Your task to perform on an android device: turn off wifi Image 0: 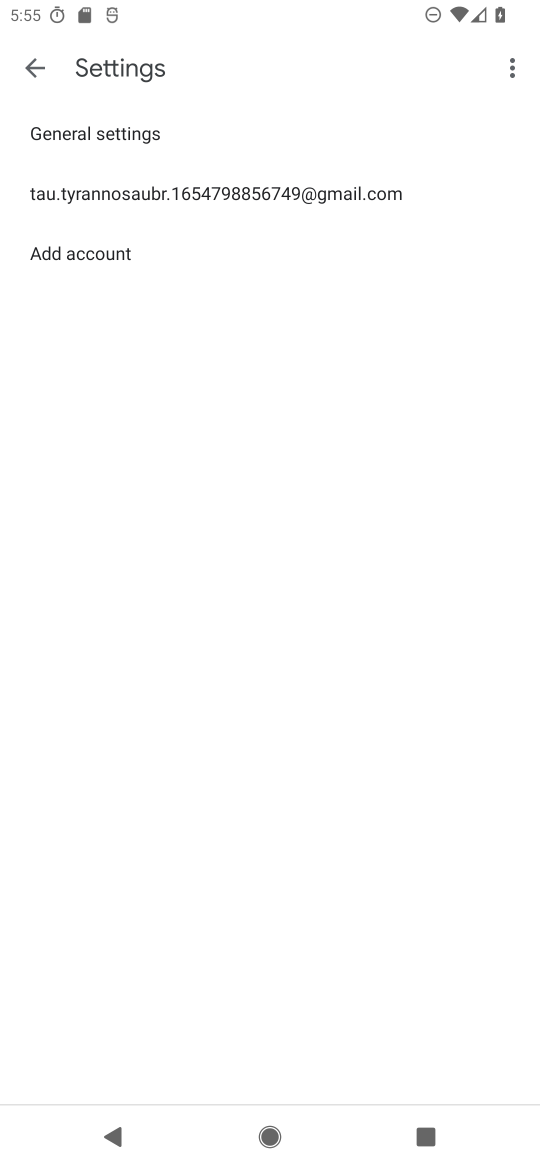
Step 0: press home button
Your task to perform on an android device: turn off wifi Image 1: 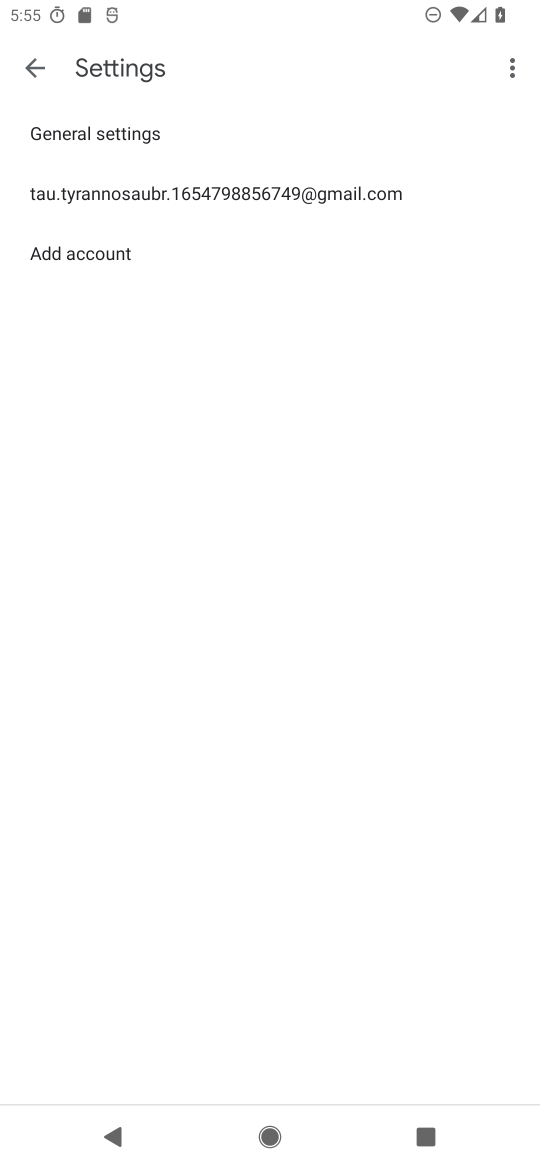
Step 1: press home button
Your task to perform on an android device: turn off wifi Image 2: 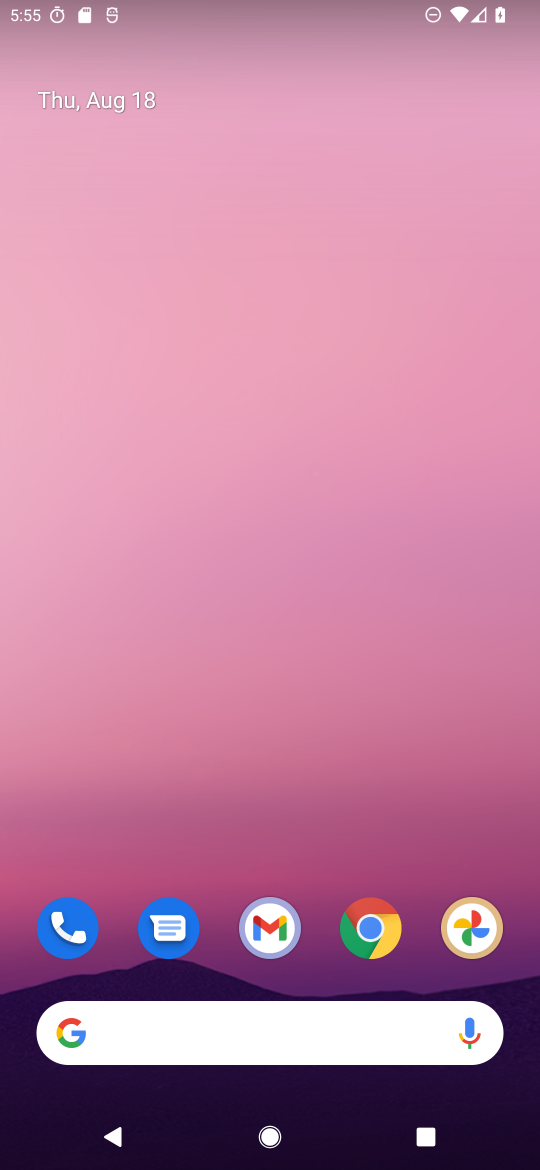
Step 2: drag from (327, 844) to (281, 46)
Your task to perform on an android device: turn off wifi Image 3: 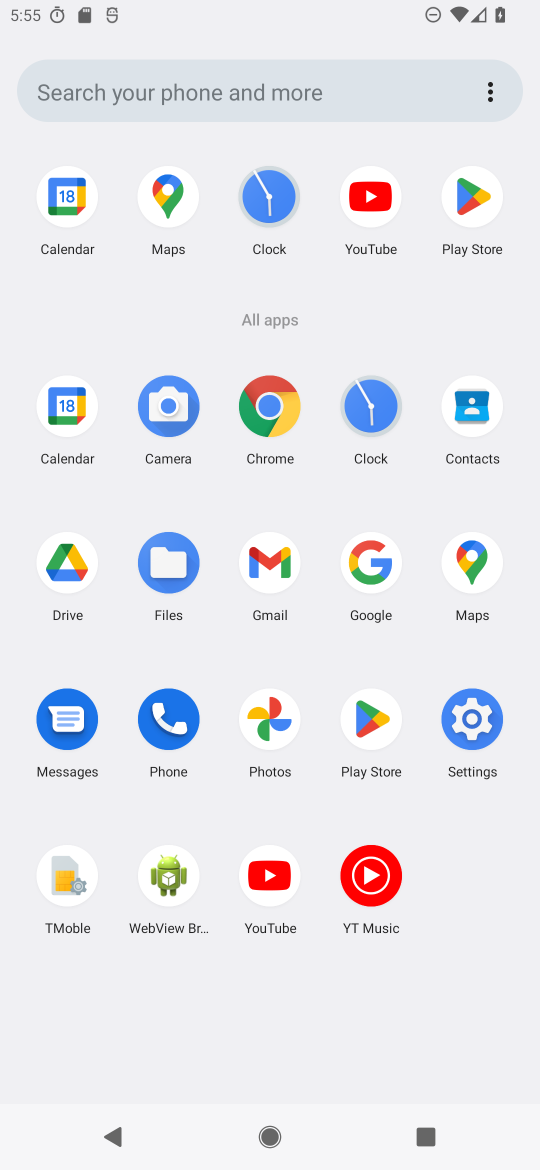
Step 3: click (476, 714)
Your task to perform on an android device: turn off wifi Image 4: 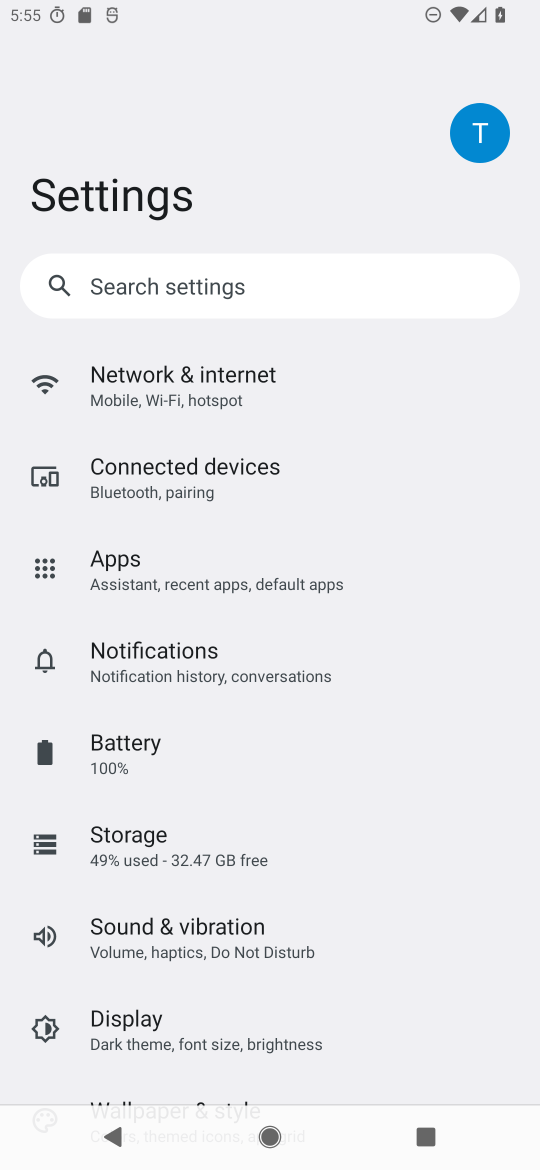
Step 4: click (194, 377)
Your task to perform on an android device: turn off wifi Image 5: 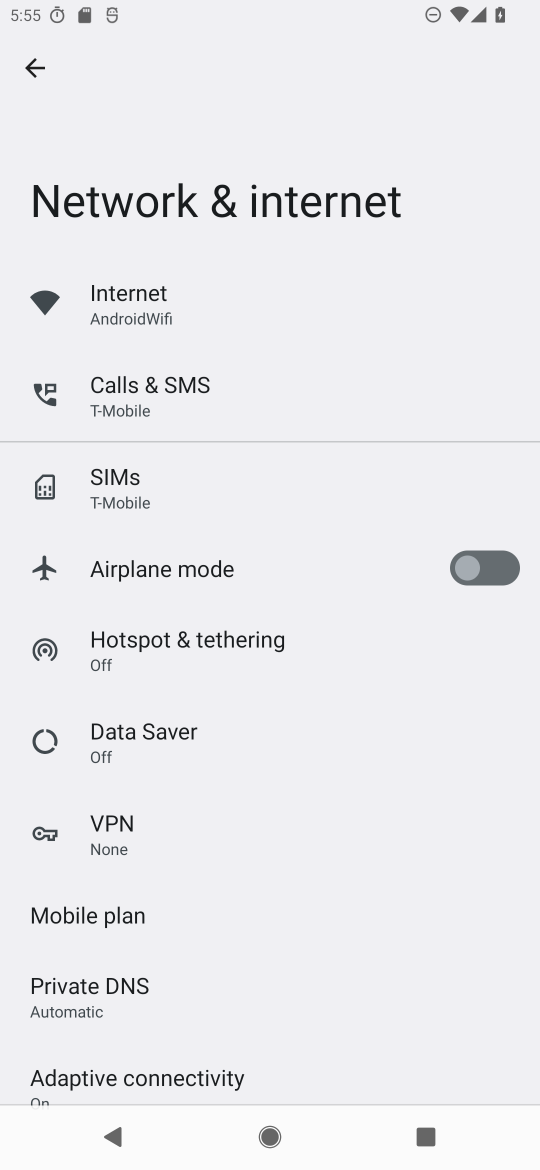
Step 5: click (152, 299)
Your task to perform on an android device: turn off wifi Image 6: 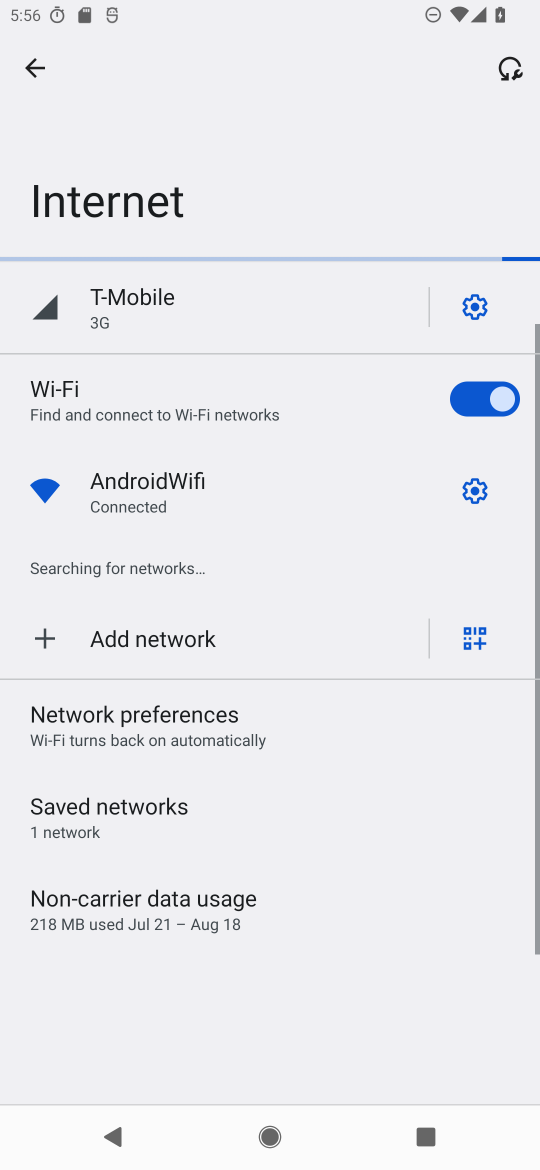
Step 6: click (498, 395)
Your task to perform on an android device: turn off wifi Image 7: 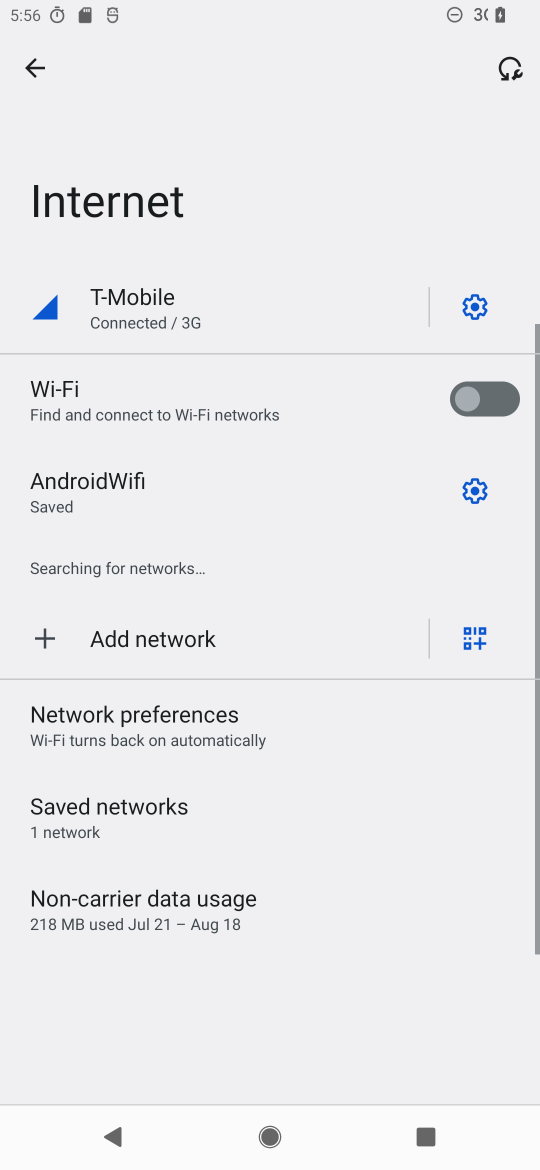
Step 7: task complete